Your task to perform on an android device: open a new tab in the chrome app Image 0: 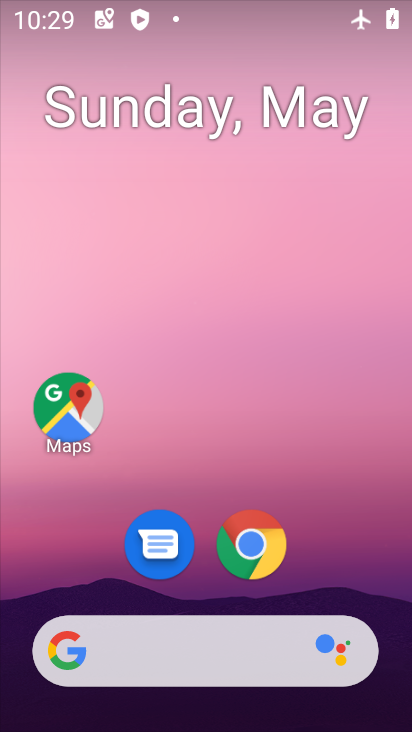
Step 0: click (265, 536)
Your task to perform on an android device: open a new tab in the chrome app Image 1: 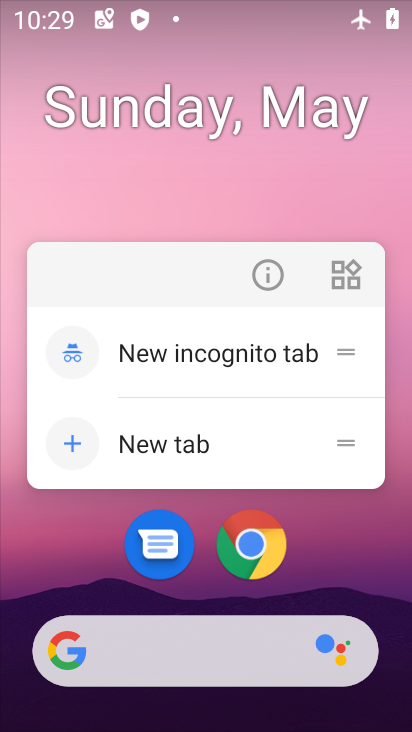
Step 1: click (223, 537)
Your task to perform on an android device: open a new tab in the chrome app Image 2: 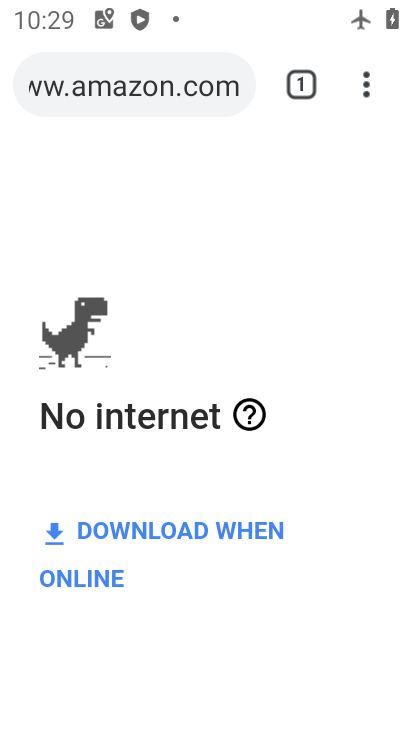
Step 2: click (372, 92)
Your task to perform on an android device: open a new tab in the chrome app Image 3: 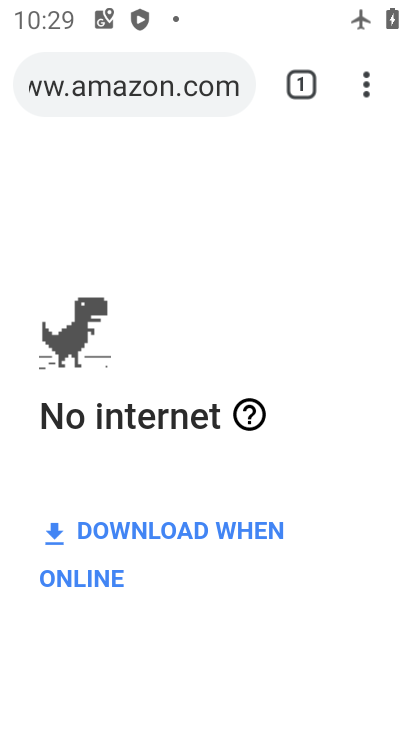
Step 3: click (349, 82)
Your task to perform on an android device: open a new tab in the chrome app Image 4: 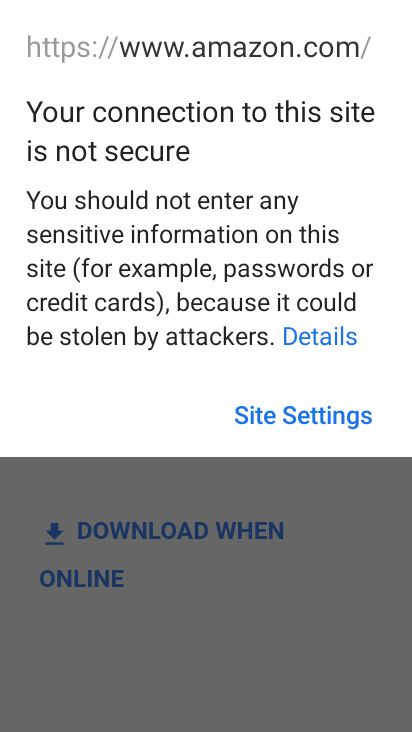
Step 4: press back button
Your task to perform on an android device: open a new tab in the chrome app Image 5: 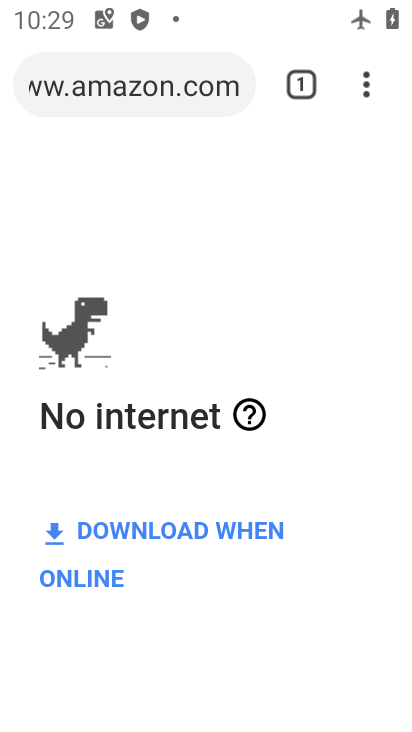
Step 5: click (365, 76)
Your task to perform on an android device: open a new tab in the chrome app Image 6: 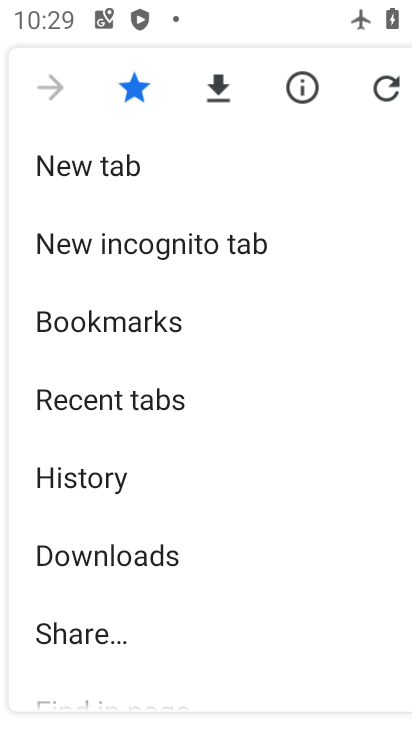
Step 6: click (125, 174)
Your task to perform on an android device: open a new tab in the chrome app Image 7: 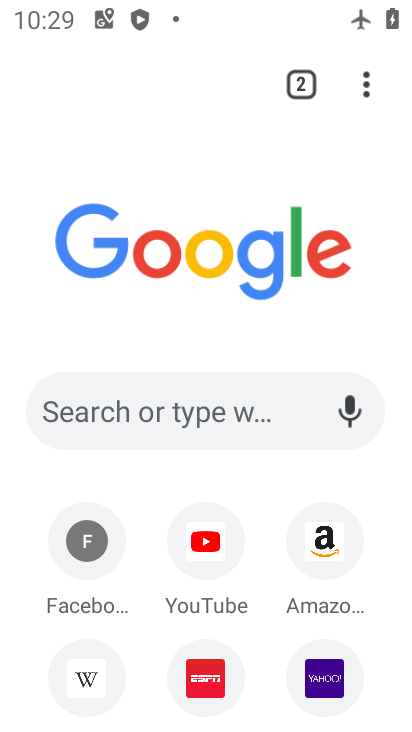
Step 7: task complete